Your task to perform on an android device: open app "Fetch Rewards" Image 0: 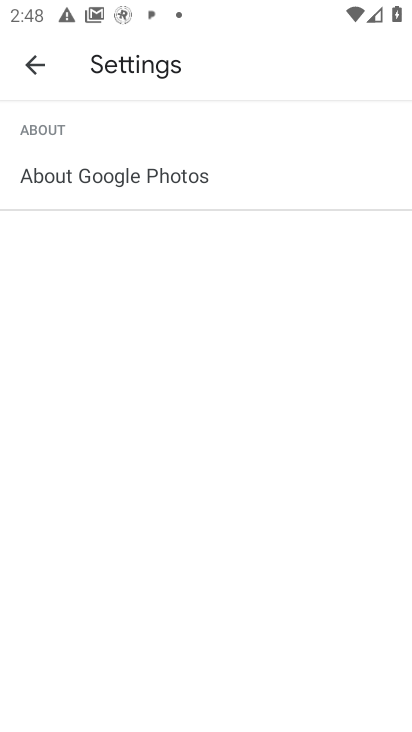
Step 0: press home button
Your task to perform on an android device: open app "Fetch Rewards" Image 1: 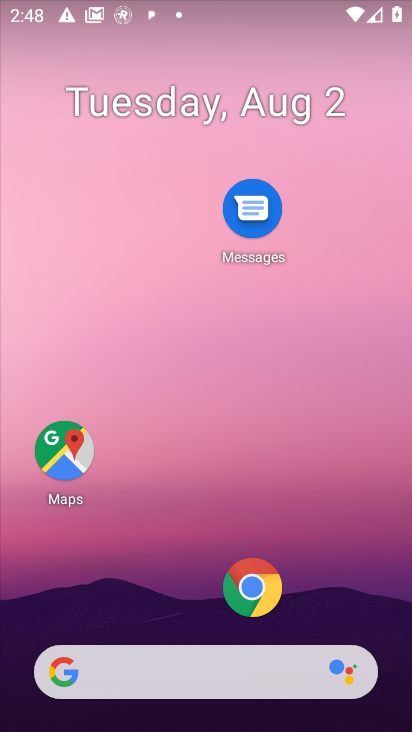
Step 1: drag from (163, 583) to (161, 145)
Your task to perform on an android device: open app "Fetch Rewards" Image 2: 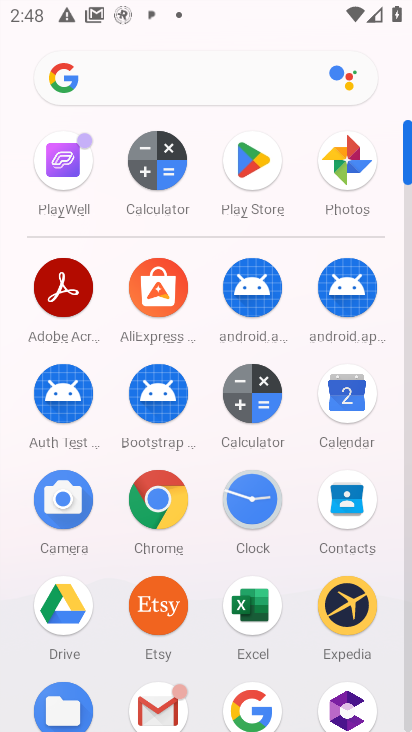
Step 2: click (252, 183)
Your task to perform on an android device: open app "Fetch Rewards" Image 3: 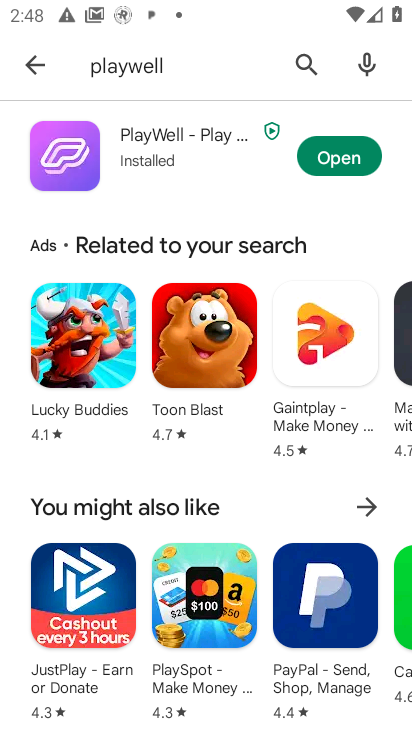
Step 3: click (303, 66)
Your task to perform on an android device: open app "Fetch Rewards" Image 4: 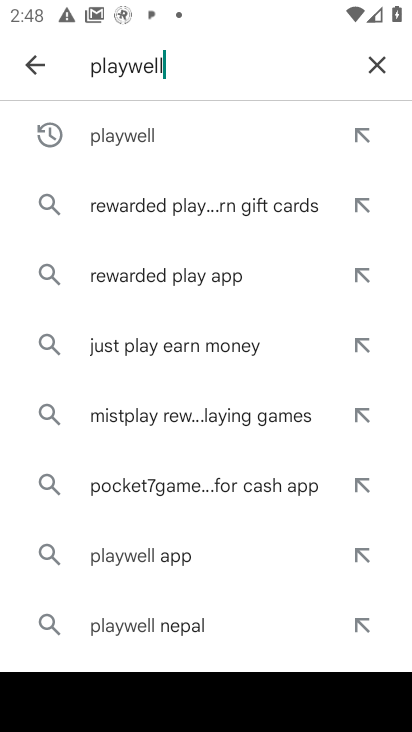
Step 4: click (370, 71)
Your task to perform on an android device: open app "Fetch Rewards" Image 5: 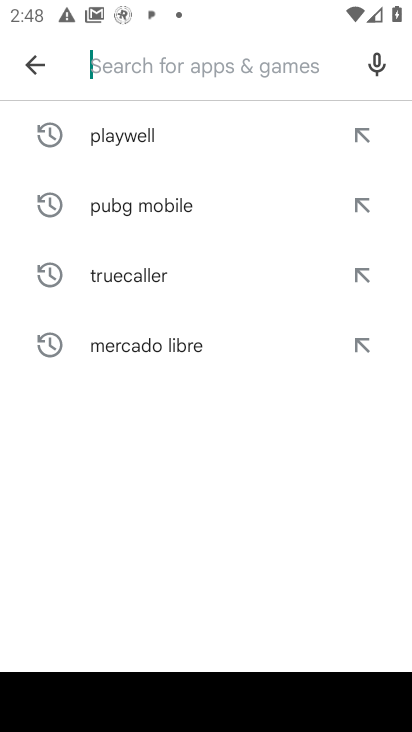
Step 5: type "Fetch Rewards"
Your task to perform on an android device: open app "Fetch Rewards" Image 6: 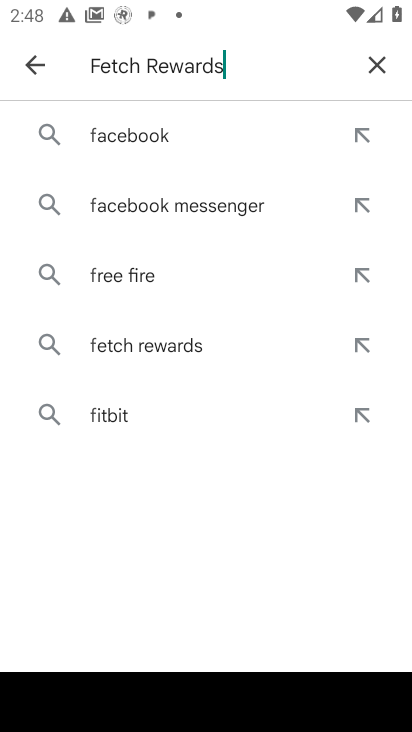
Step 6: type ""
Your task to perform on an android device: open app "Fetch Rewards" Image 7: 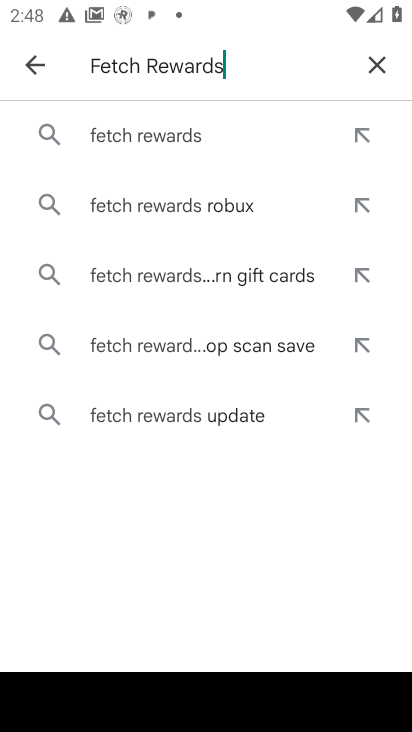
Step 7: click (116, 140)
Your task to perform on an android device: open app "Fetch Rewards" Image 8: 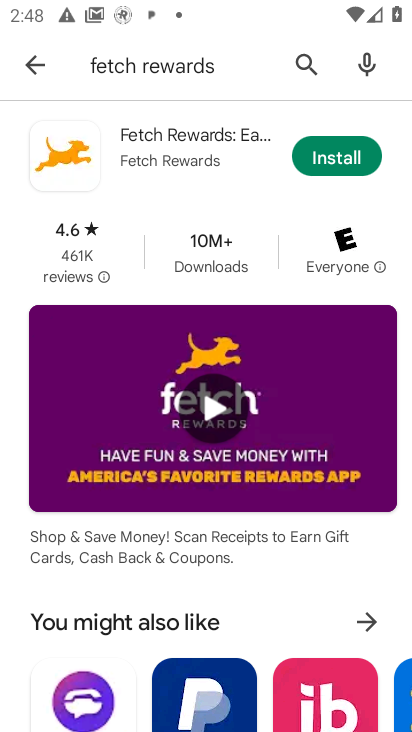
Step 8: task complete